Your task to perform on an android device: turn on airplane mode Image 0: 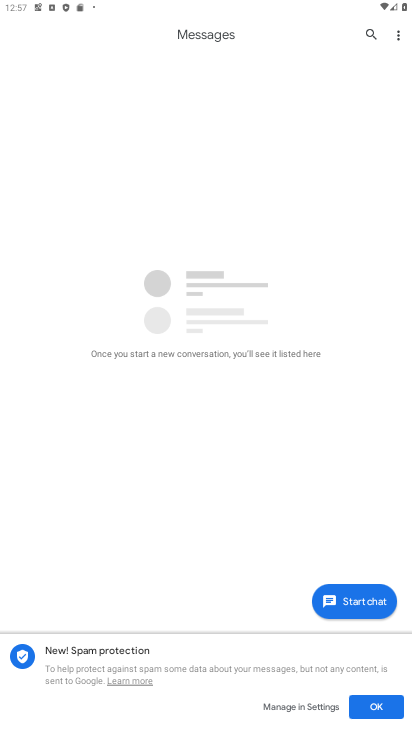
Step 0: press home button
Your task to perform on an android device: turn on airplane mode Image 1: 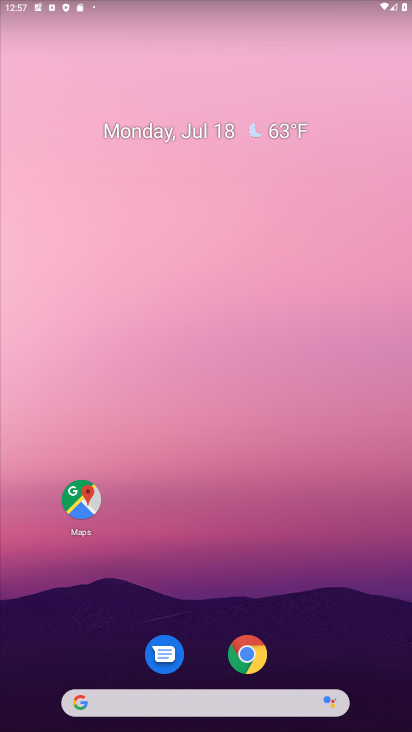
Step 1: drag from (196, 595) to (138, 112)
Your task to perform on an android device: turn on airplane mode Image 2: 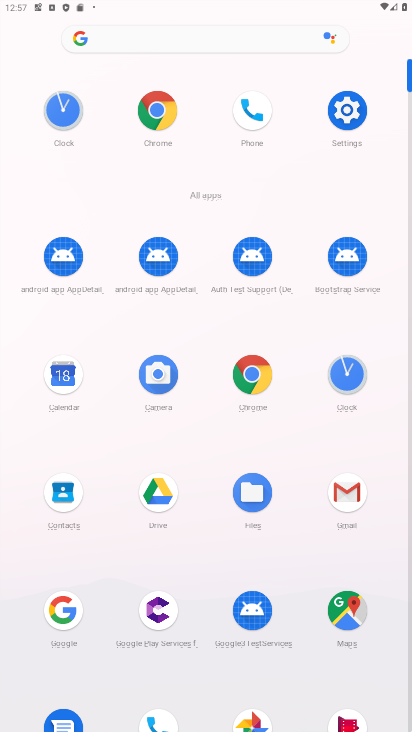
Step 2: click (363, 118)
Your task to perform on an android device: turn on airplane mode Image 3: 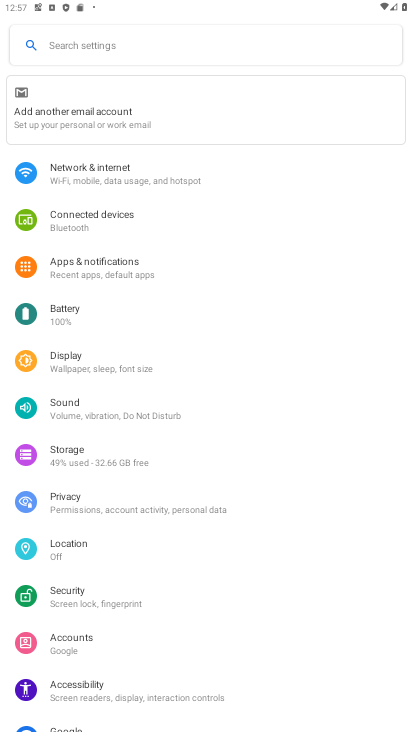
Step 3: click (183, 180)
Your task to perform on an android device: turn on airplane mode Image 4: 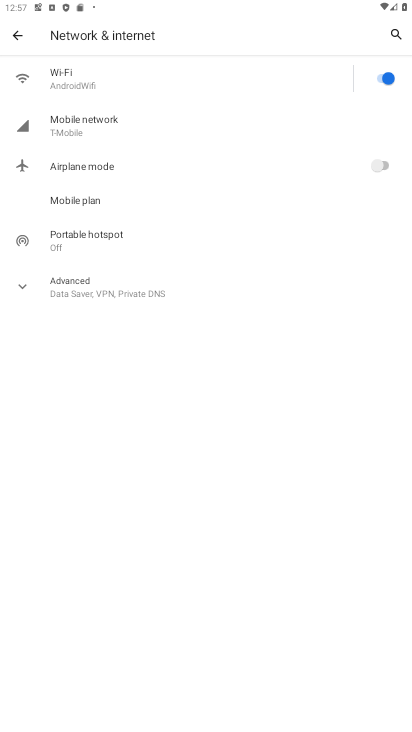
Step 4: click (378, 153)
Your task to perform on an android device: turn on airplane mode Image 5: 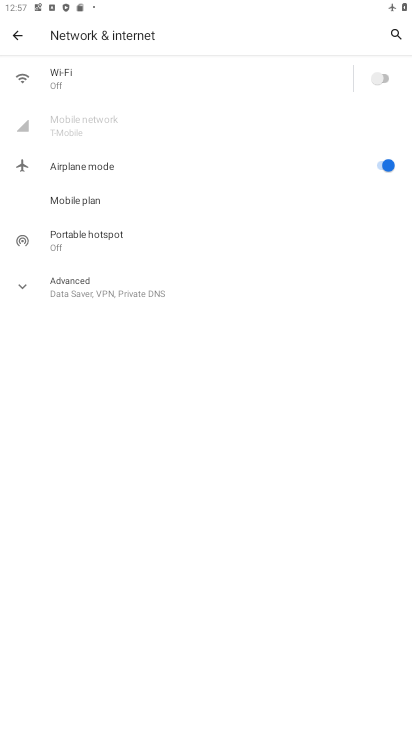
Step 5: task complete